Your task to perform on an android device: Go to notification settings Image 0: 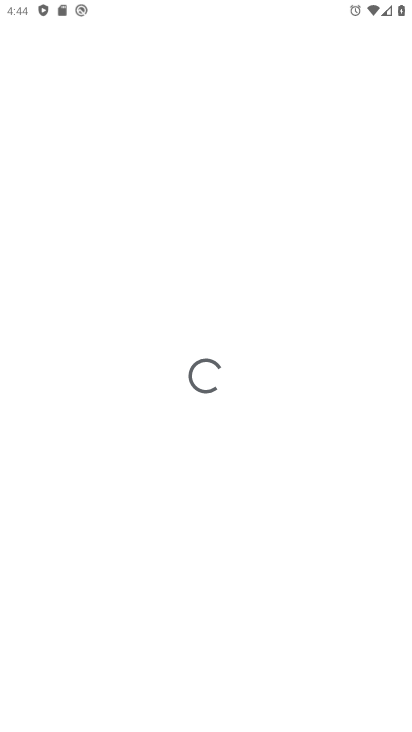
Step 0: drag from (208, 609) to (162, 260)
Your task to perform on an android device: Go to notification settings Image 1: 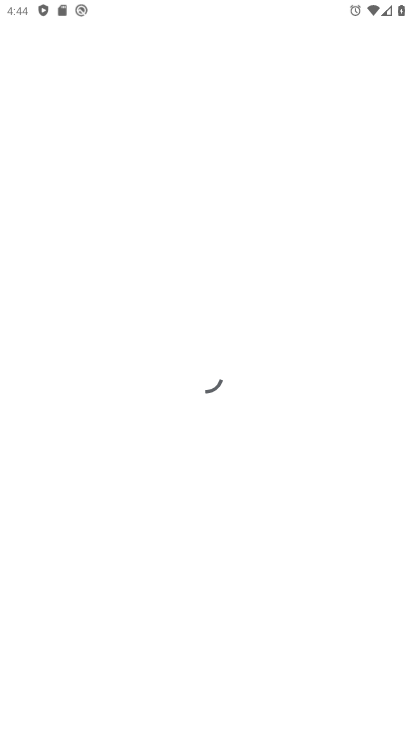
Step 1: press back button
Your task to perform on an android device: Go to notification settings Image 2: 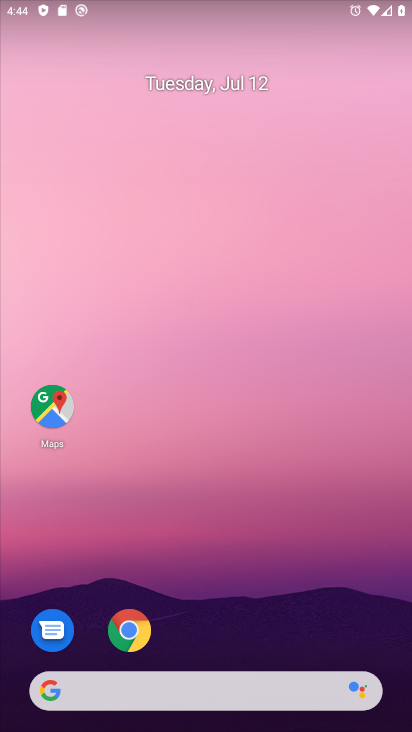
Step 2: drag from (268, 666) to (80, 153)
Your task to perform on an android device: Go to notification settings Image 3: 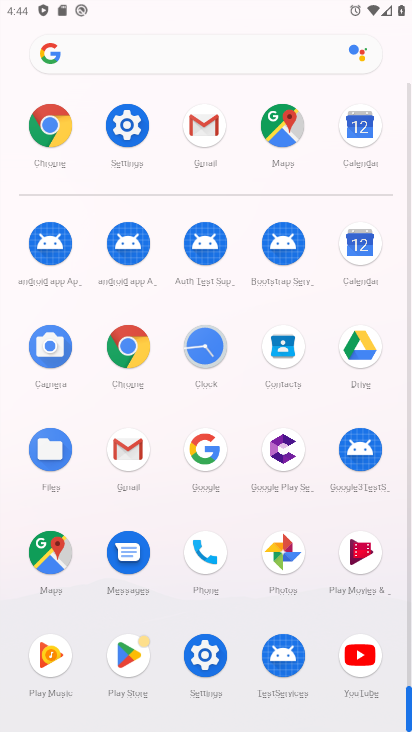
Step 3: click (127, 109)
Your task to perform on an android device: Go to notification settings Image 4: 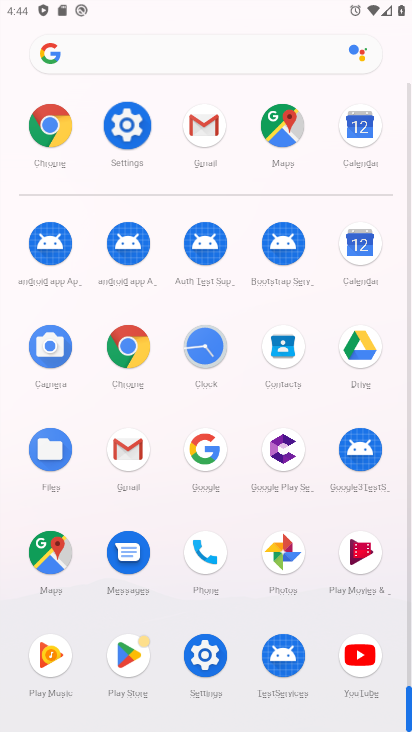
Step 4: click (134, 108)
Your task to perform on an android device: Go to notification settings Image 5: 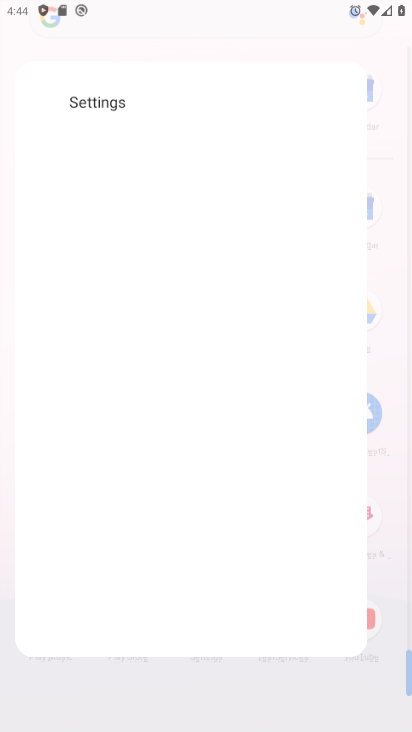
Step 5: click (132, 108)
Your task to perform on an android device: Go to notification settings Image 6: 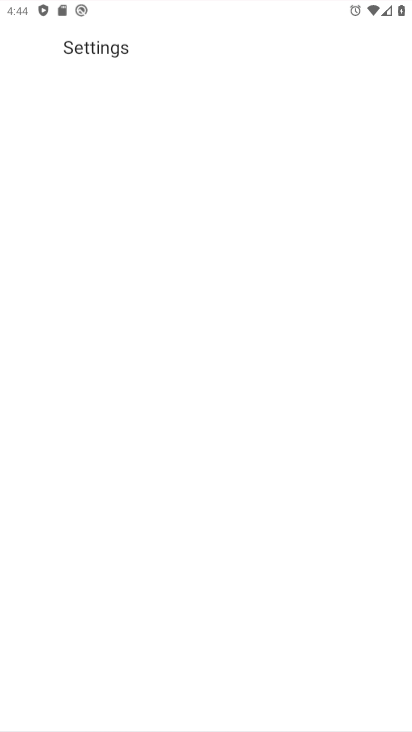
Step 6: click (129, 109)
Your task to perform on an android device: Go to notification settings Image 7: 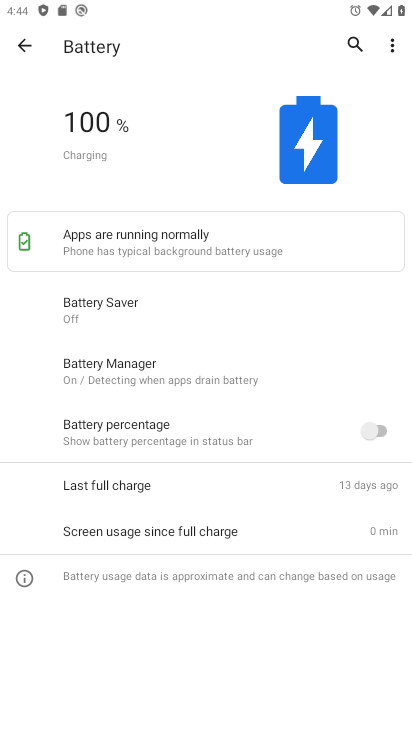
Step 7: click (13, 29)
Your task to perform on an android device: Go to notification settings Image 8: 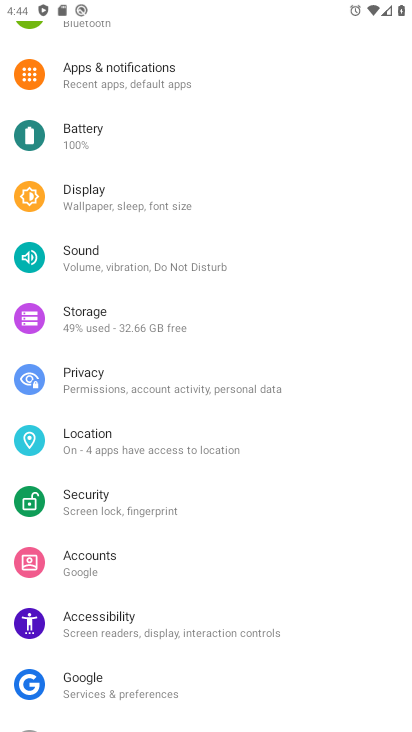
Step 8: click (109, 84)
Your task to perform on an android device: Go to notification settings Image 9: 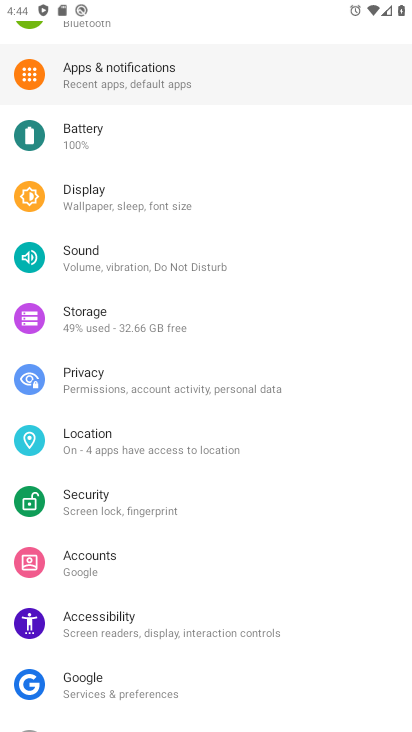
Step 9: click (109, 84)
Your task to perform on an android device: Go to notification settings Image 10: 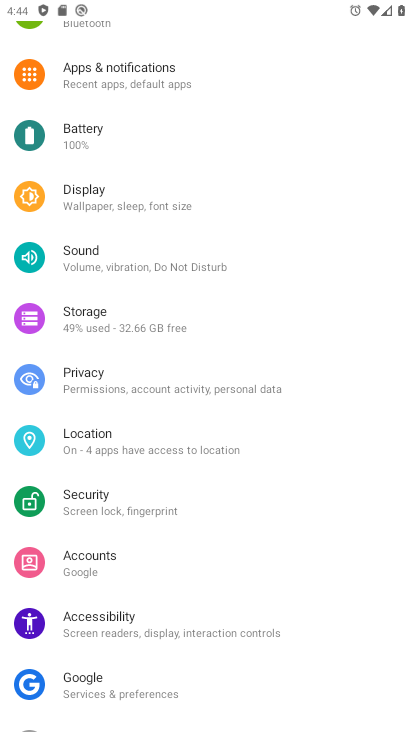
Step 10: click (112, 82)
Your task to perform on an android device: Go to notification settings Image 11: 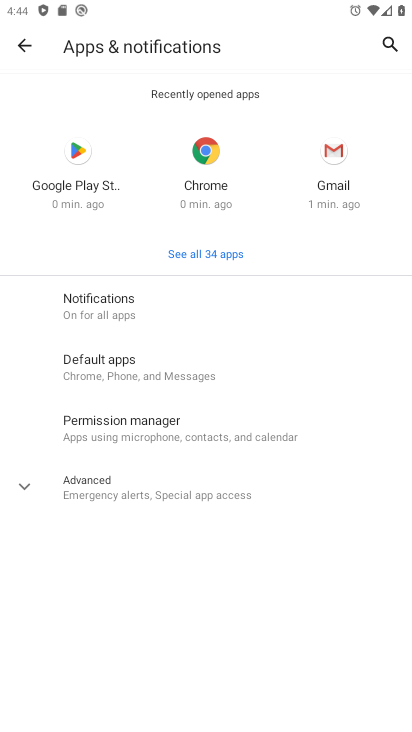
Step 11: click (76, 315)
Your task to perform on an android device: Go to notification settings Image 12: 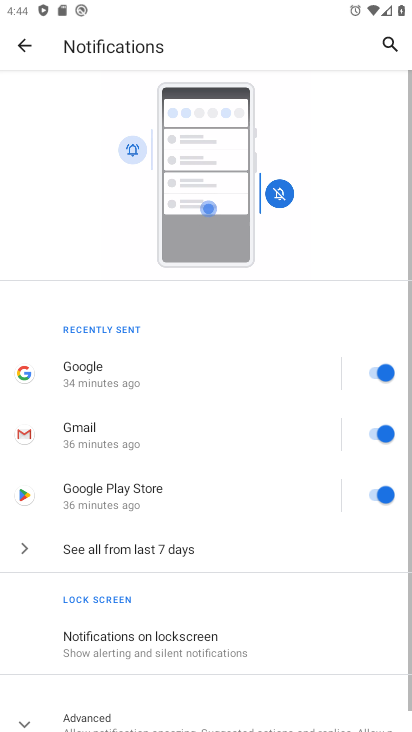
Step 12: task complete